Your task to perform on an android device: Open CNN.com Image 0: 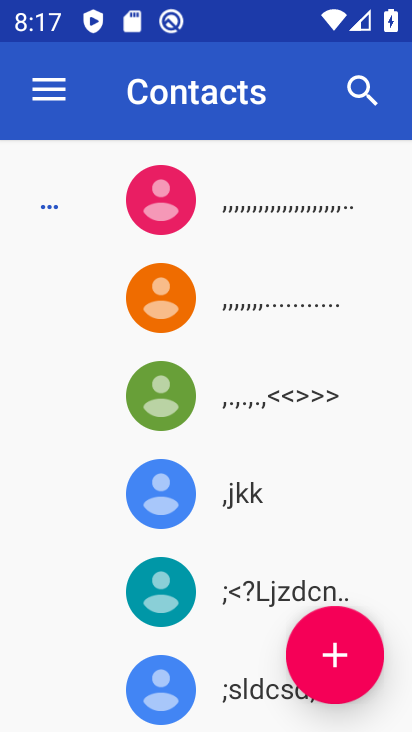
Step 0: press home button
Your task to perform on an android device: Open CNN.com Image 1: 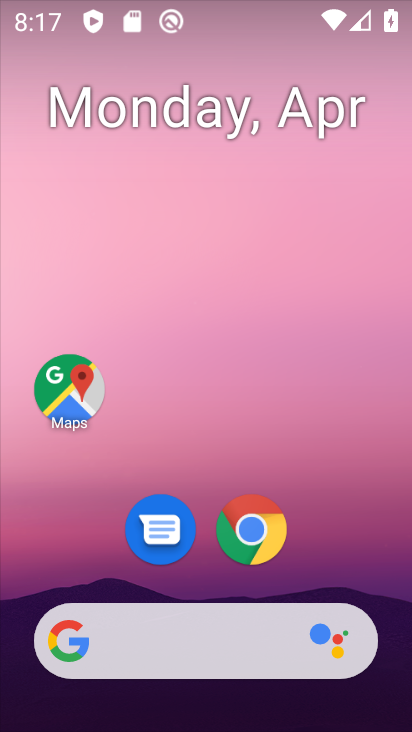
Step 1: click (246, 536)
Your task to perform on an android device: Open CNN.com Image 2: 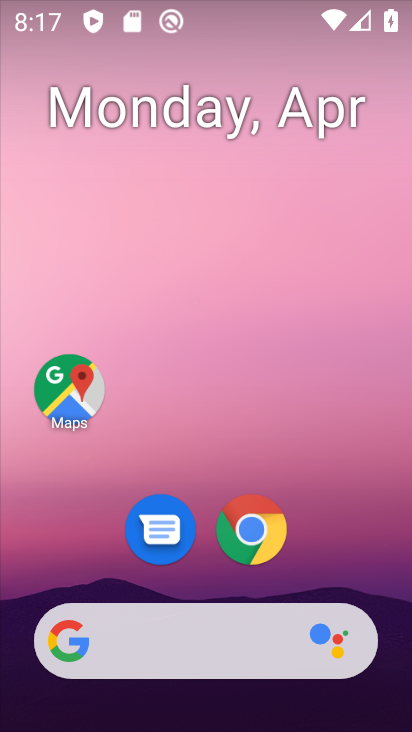
Step 2: click (273, 537)
Your task to perform on an android device: Open CNN.com Image 3: 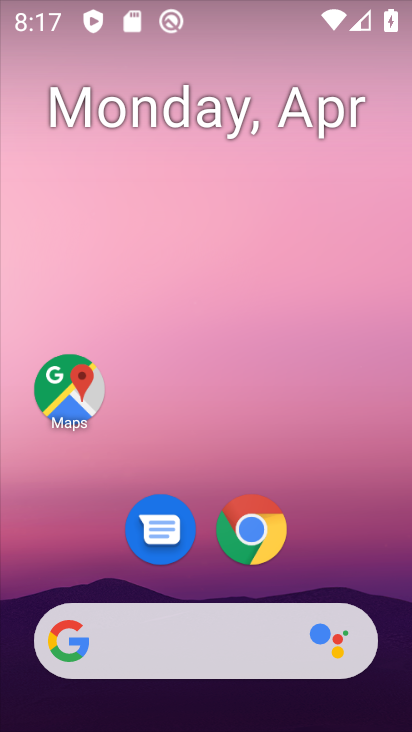
Step 3: click (259, 544)
Your task to perform on an android device: Open CNN.com Image 4: 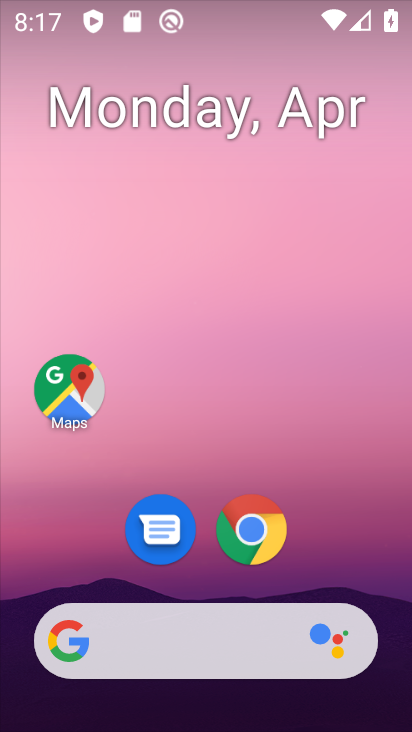
Step 4: click (264, 549)
Your task to perform on an android device: Open CNN.com Image 5: 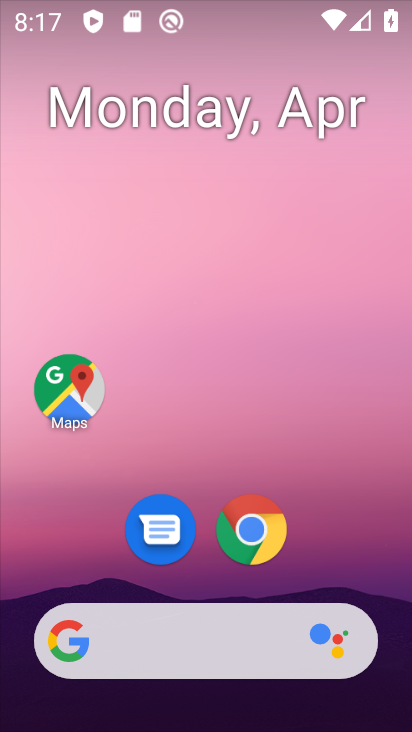
Step 5: click (259, 563)
Your task to perform on an android device: Open CNN.com Image 6: 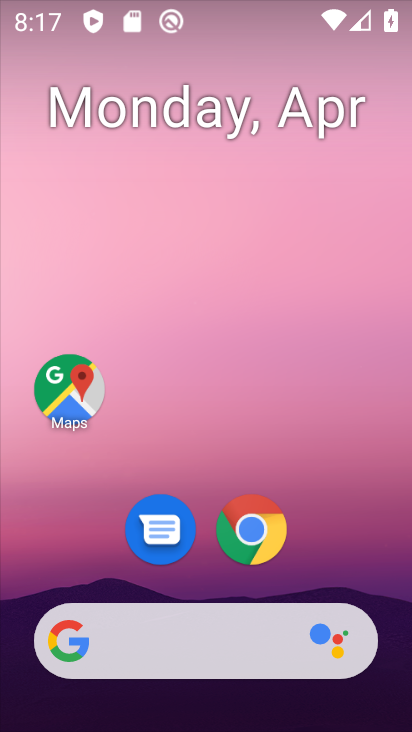
Step 6: click (259, 550)
Your task to perform on an android device: Open CNN.com Image 7: 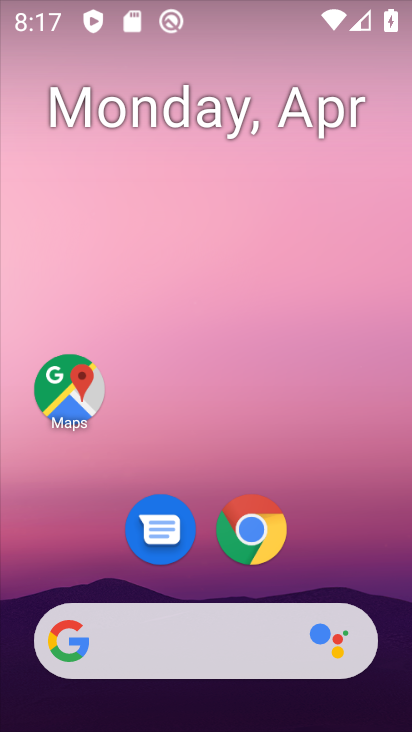
Step 7: click (271, 553)
Your task to perform on an android device: Open CNN.com Image 8: 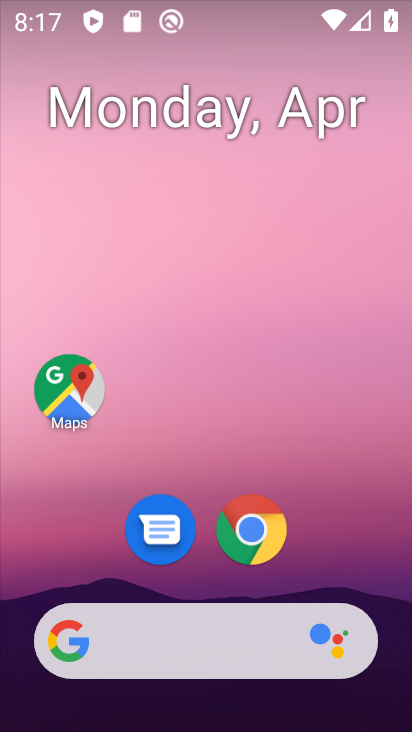
Step 8: drag from (355, 551) to (353, 127)
Your task to perform on an android device: Open CNN.com Image 9: 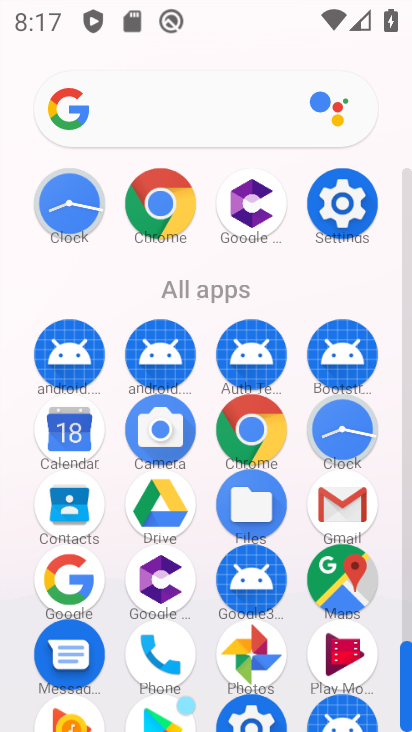
Step 9: click (255, 431)
Your task to perform on an android device: Open CNN.com Image 10: 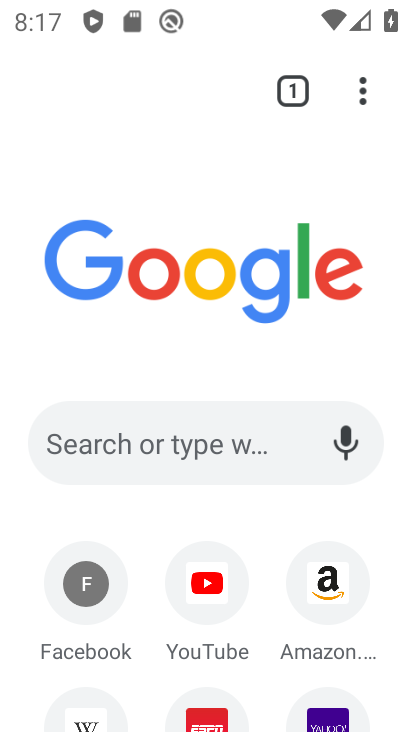
Step 10: click (270, 447)
Your task to perform on an android device: Open CNN.com Image 11: 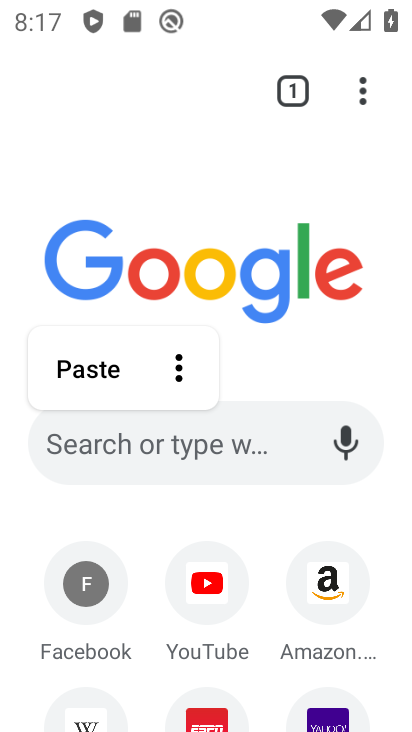
Step 11: click (241, 442)
Your task to perform on an android device: Open CNN.com Image 12: 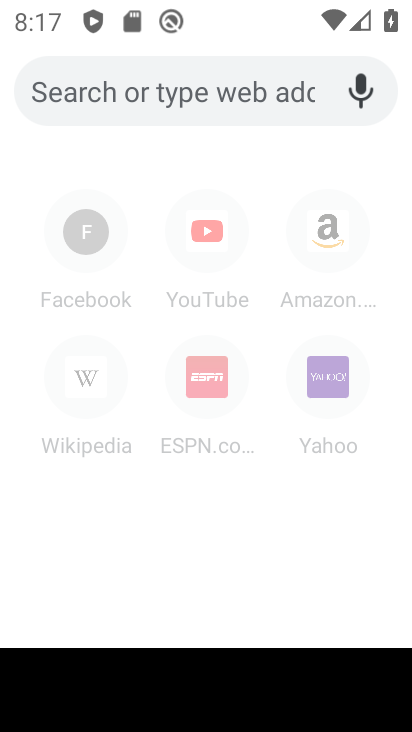
Step 12: type "cnn.com"
Your task to perform on an android device: Open CNN.com Image 13: 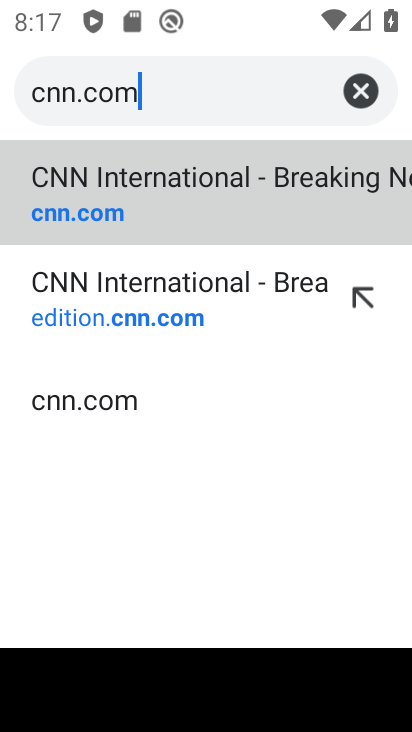
Step 13: click (89, 403)
Your task to perform on an android device: Open CNN.com Image 14: 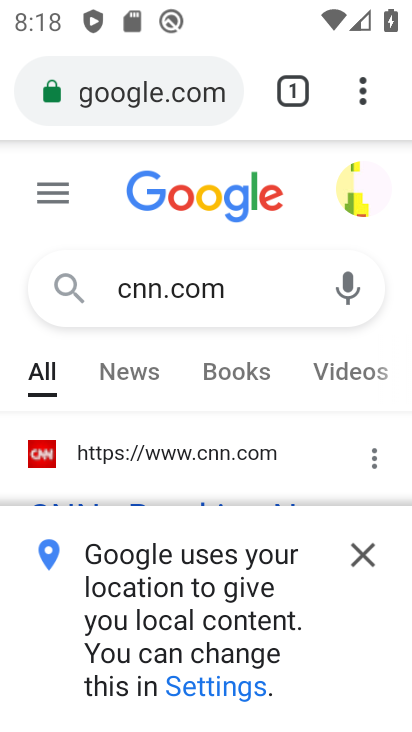
Step 14: click (356, 560)
Your task to perform on an android device: Open CNN.com Image 15: 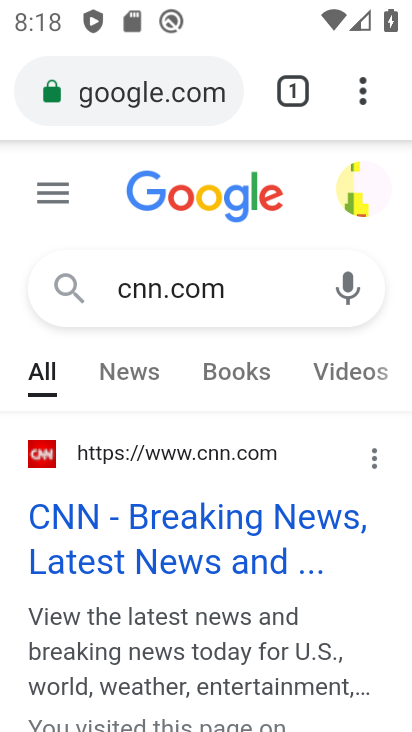
Step 15: click (225, 547)
Your task to perform on an android device: Open CNN.com Image 16: 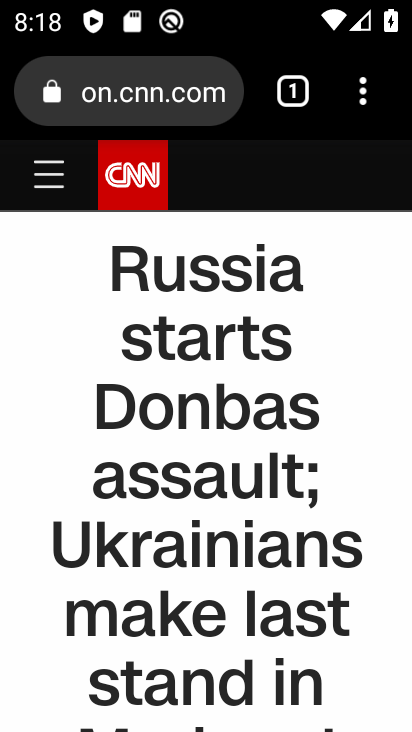
Step 16: task complete